Your task to perform on an android device: View the shopping cart on walmart.com. Search for "asus rog" on walmart.com, select the first entry, add it to the cart, then select checkout. Image 0: 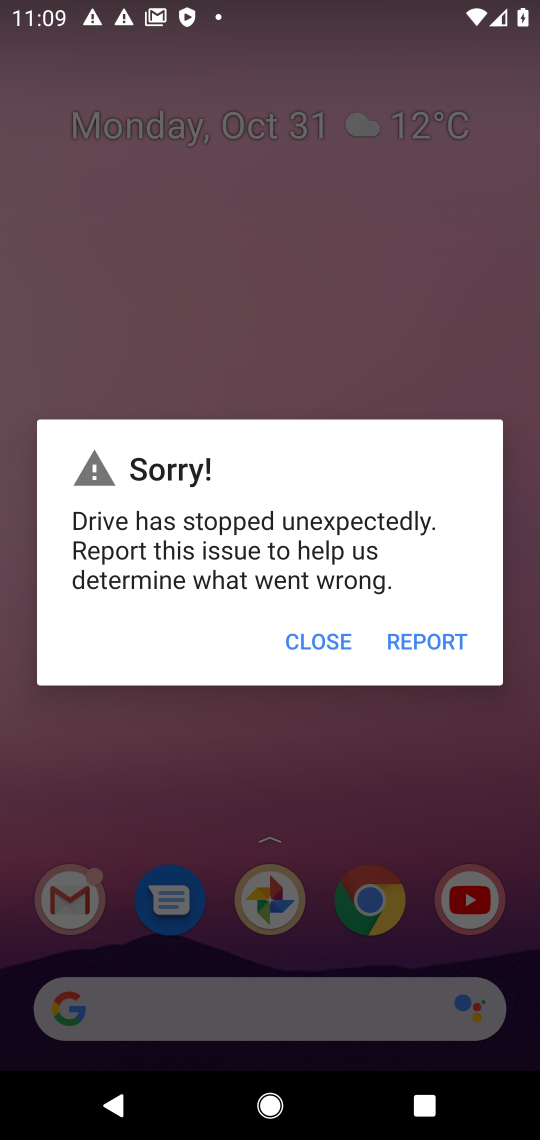
Step 0: click (185, 991)
Your task to perform on an android device: View the shopping cart on walmart.com. Search for "asus rog" on walmart.com, select the first entry, add it to the cart, then select checkout. Image 1: 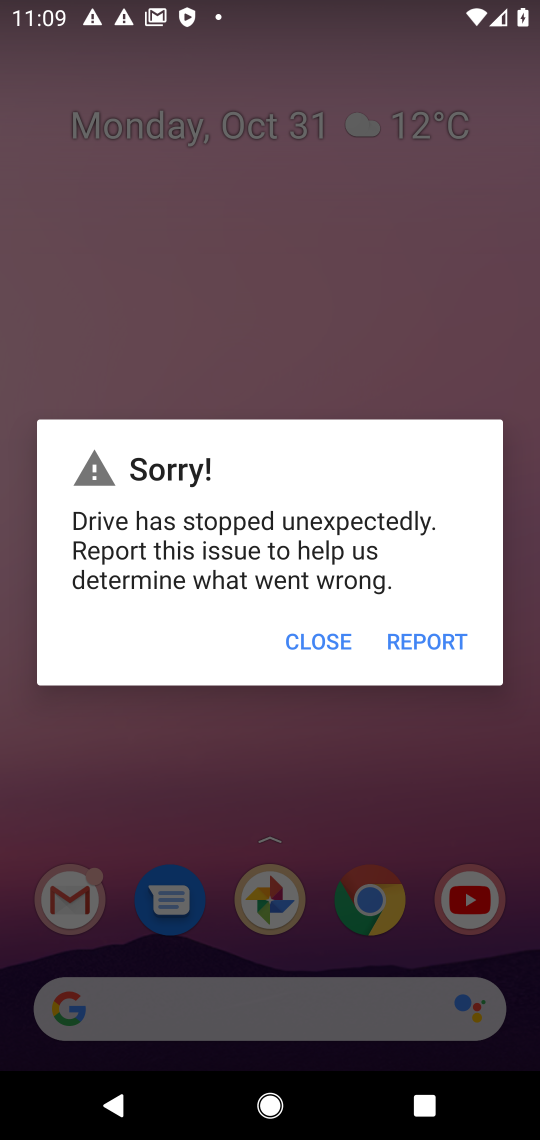
Step 1: click (187, 993)
Your task to perform on an android device: View the shopping cart on walmart.com. Search for "asus rog" on walmart.com, select the first entry, add it to the cart, then select checkout. Image 2: 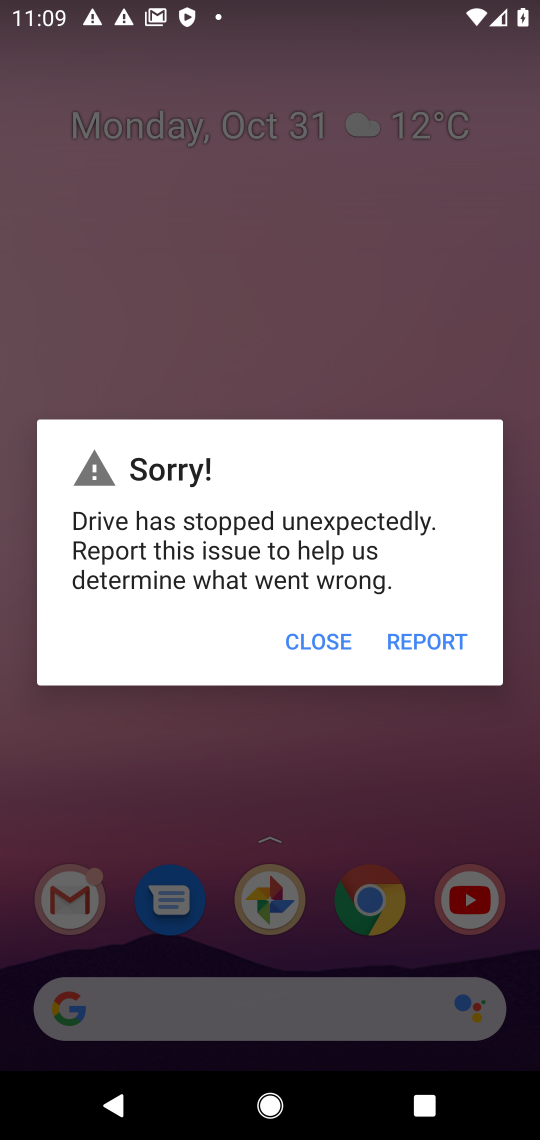
Step 2: click (187, 993)
Your task to perform on an android device: View the shopping cart on walmart.com. Search for "asus rog" on walmart.com, select the first entry, add it to the cart, then select checkout. Image 3: 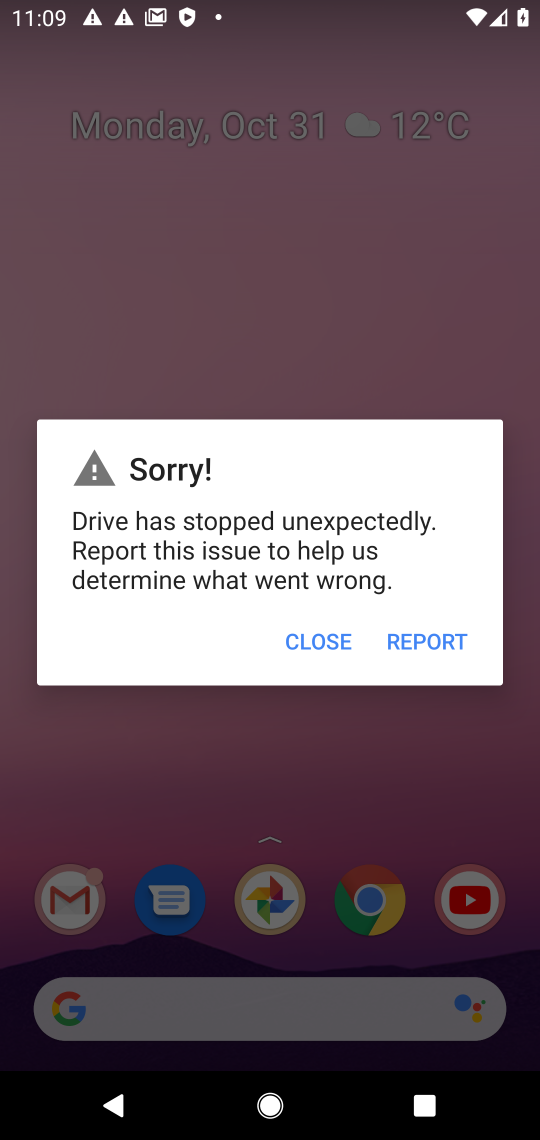
Step 3: click (145, 980)
Your task to perform on an android device: View the shopping cart on walmart.com. Search for "asus rog" on walmart.com, select the first entry, add it to the cart, then select checkout. Image 4: 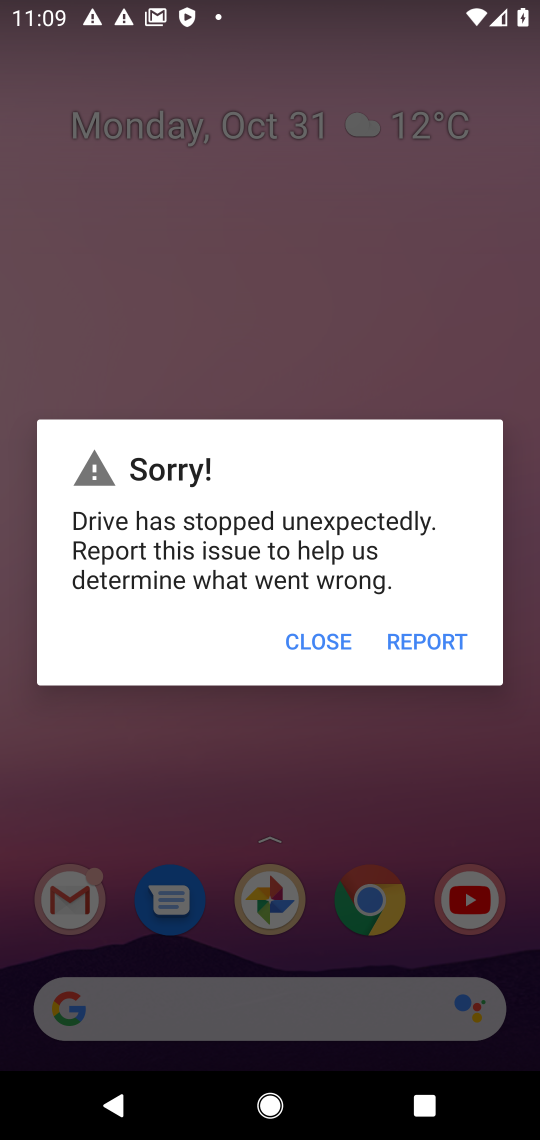
Step 4: click (208, 1001)
Your task to perform on an android device: View the shopping cart on walmart.com. Search for "asus rog" on walmart.com, select the first entry, add it to the cart, then select checkout. Image 5: 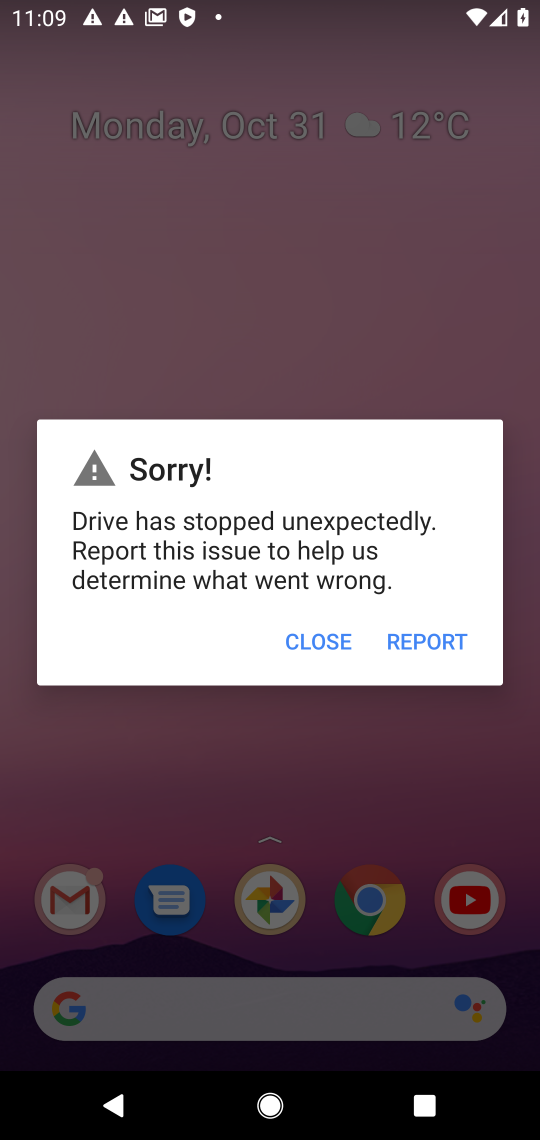
Step 5: task complete